Your task to perform on an android device: Open the calendar and show me this week's events? Image 0: 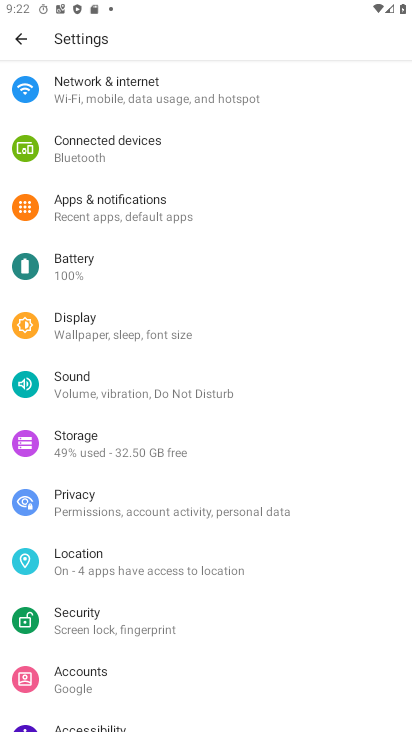
Step 0: press home button
Your task to perform on an android device: Open the calendar and show me this week's events? Image 1: 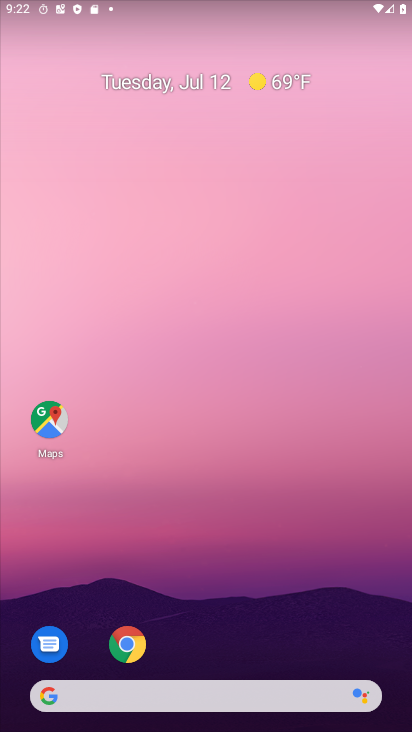
Step 1: drag from (218, 665) to (233, 39)
Your task to perform on an android device: Open the calendar and show me this week's events? Image 2: 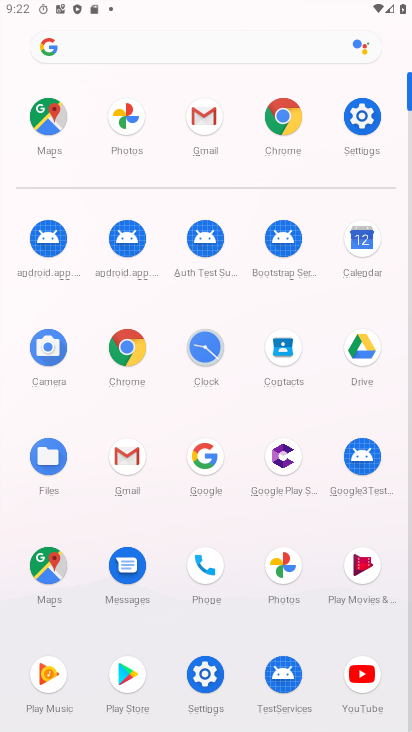
Step 2: click (355, 233)
Your task to perform on an android device: Open the calendar and show me this week's events? Image 3: 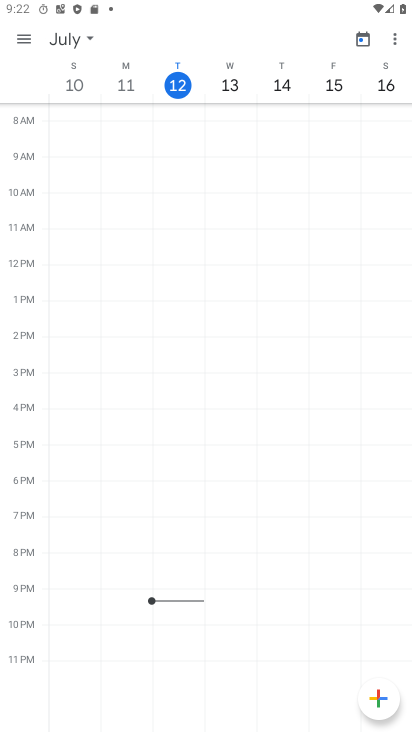
Step 3: task complete